Your task to perform on an android device: stop showing notifications on the lock screen Image 0: 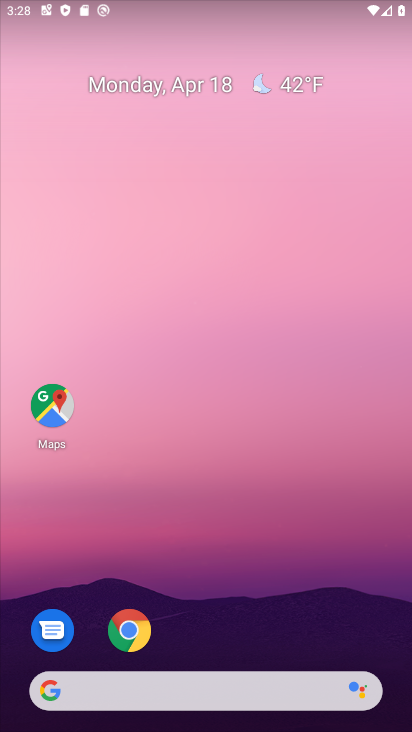
Step 0: drag from (270, 617) to (251, 3)
Your task to perform on an android device: stop showing notifications on the lock screen Image 1: 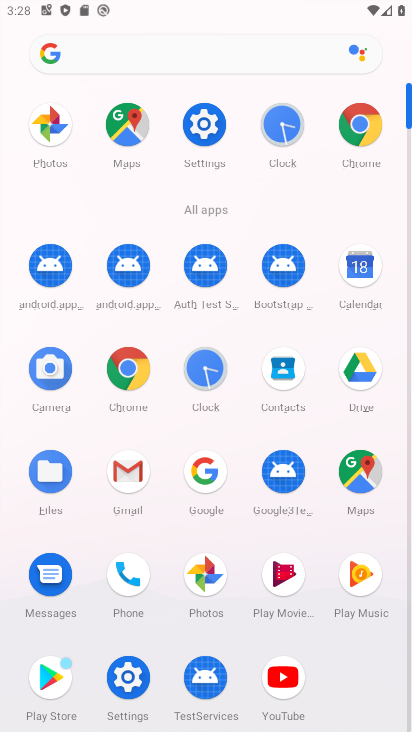
Step 1: click (122, 689)
Your task to perform on an android device: stop showing notifications on the lock screen Image 2: 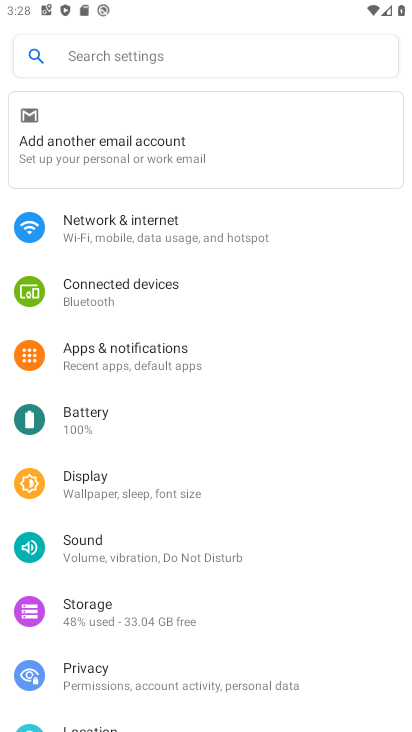
Step 2: drag from (258, 652) to (214, 248)
Your task to perform on an android device: stop showing notifications on the lock screen Image 3: 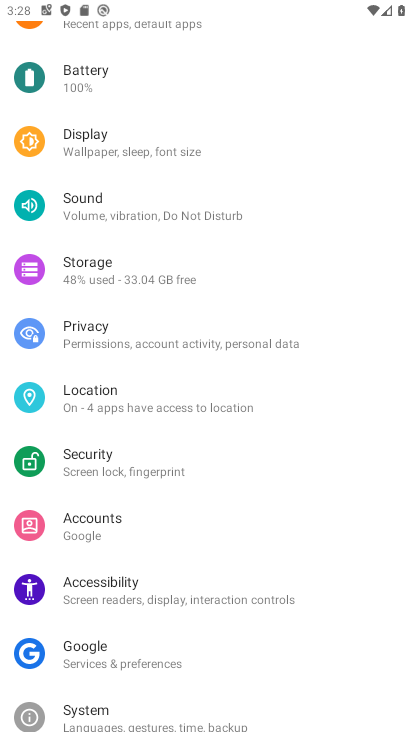
Step 3: drag from (192, 117) to (213, 527)
Your task to perform on an android device: stop showing notifications on the lock screen Image 4: 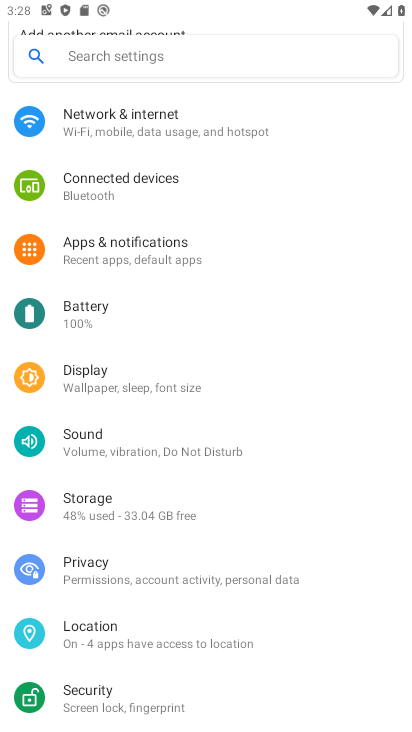
Step 4: click (169, 244)
Your task to perform on an android device: stop showing notifications on the lock screen Image 5: 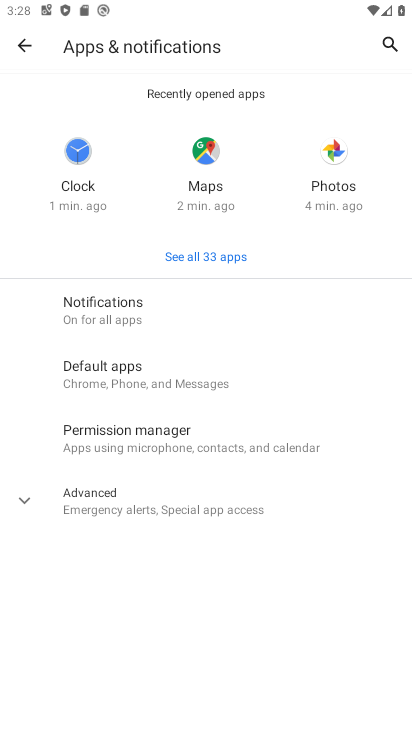
Step 5: click (165, 298)
Your task to perform on an android device: stop showing notifications on the lock screen Image 6: 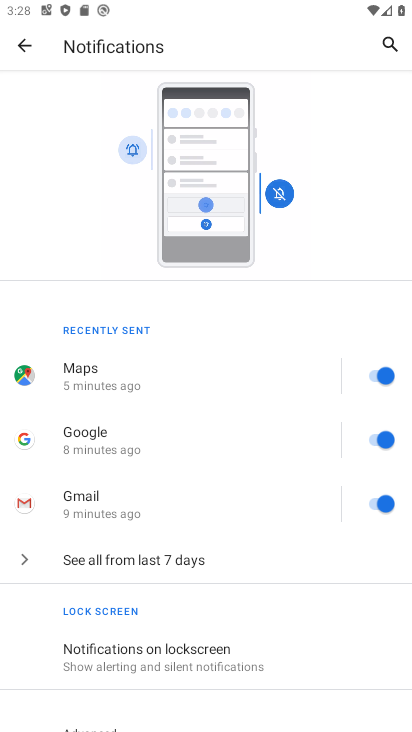
Step 6: drag from (189, 702) to (171, 375)
Your task to perform on an android device: stop showing notifications on the lock screen Image 7: 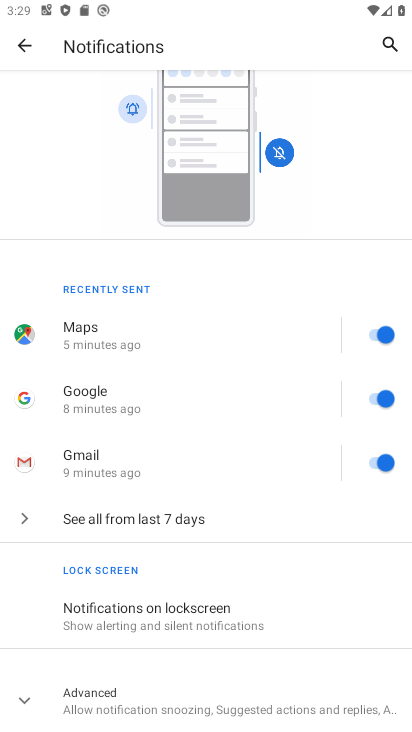
Step 7: click (195, 619)
Your task to perform on an android device: stop showing notifications on the lock screen Image 8: 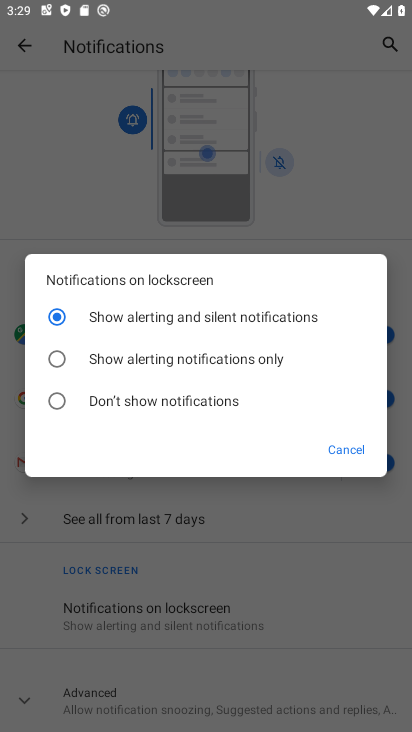
Step 8: click (174, 402)
Your task to perform on an android device: stop showing notifications on the lock screen Image 9: 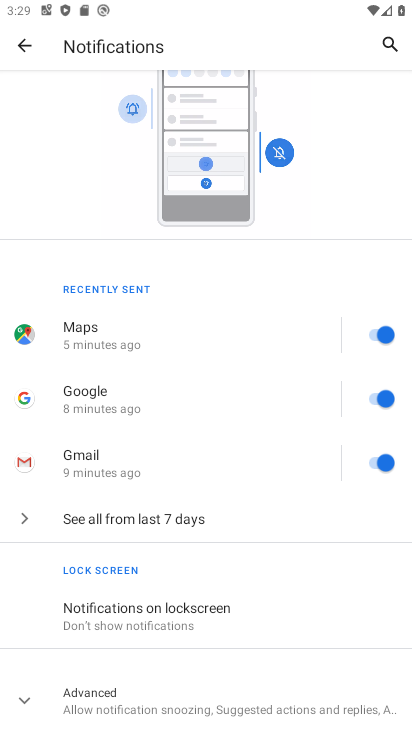
Step 9: task complete